Your task to perform on an android device: Search for Mexican restaurants on Maps Image 0: 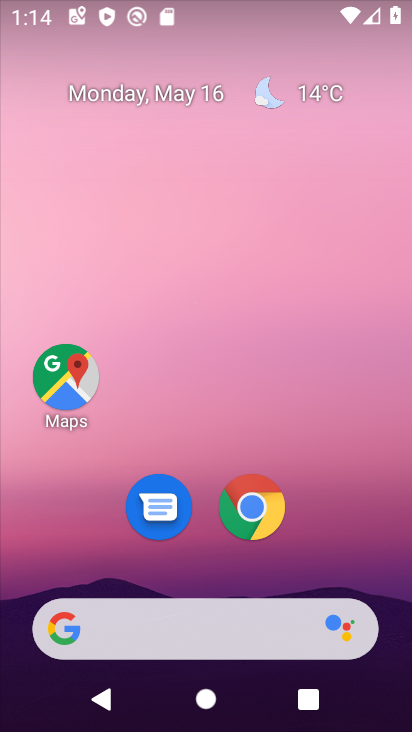
Step 0: drag from (192, 563) to (226, 220)
Your task to perform on an android device: Search for Mexican restaurants on Maps Image 1: 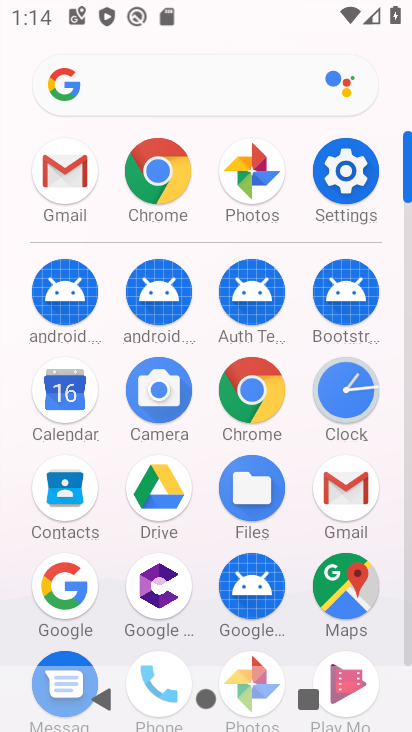
Step 1: click (374, 592)
Your task to perform on an android device: Search for Mexican restaurants on Maps Image 2: 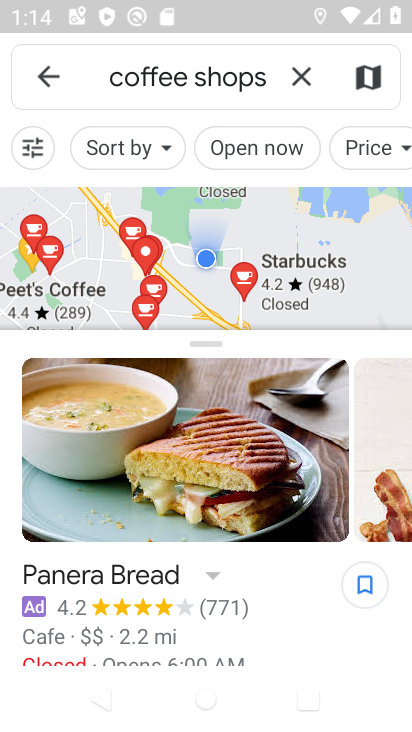
Step 2: click (297, 79)
Your task to perform on an android device: Search for Mexican restaurants on Maps Image 3: 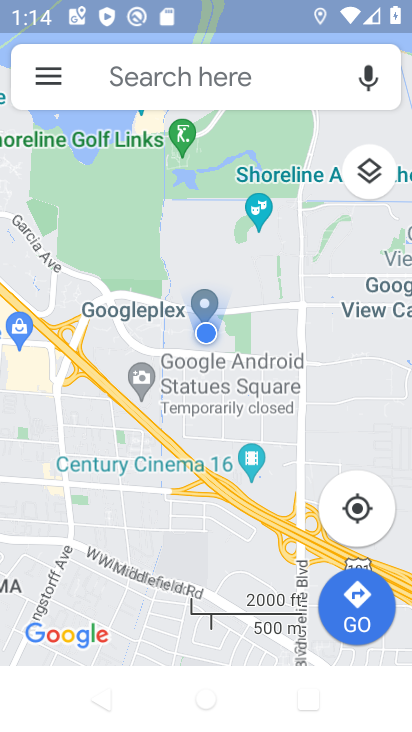
Step 3: click (243, 83)
Your task to perform on an android device: Search for Mexican restaurants on Maps Image 4: 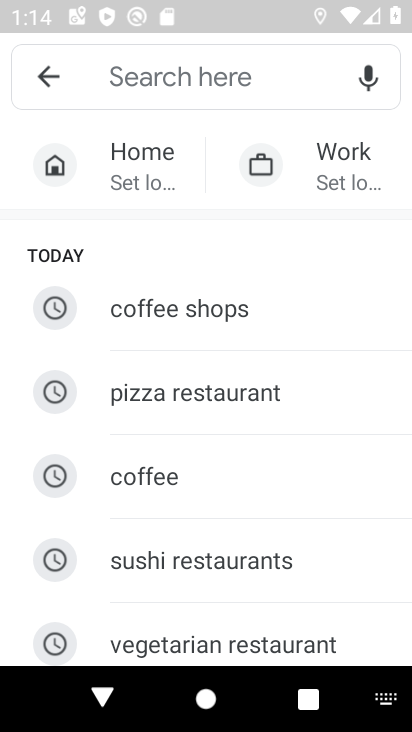
Step 4: drag from (232, 598) to (271, 221)
Your task to perform on an android device: Search for Mexican restaurants on Maps Image 5: 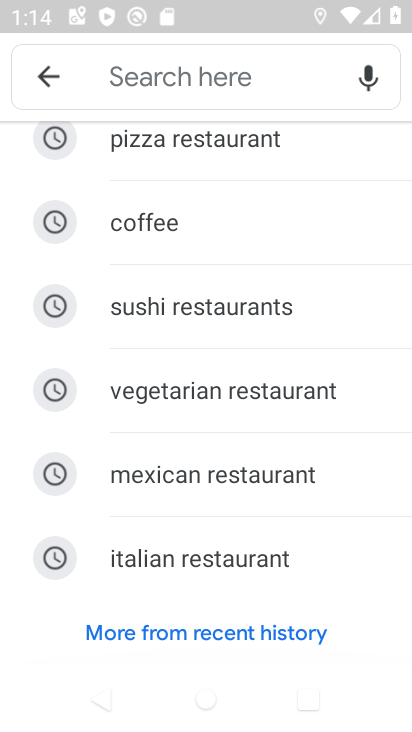
Step 5: click (258, 481)
Your task to perform on an android device: Search for Mexican restaurants on Maps Image 6: 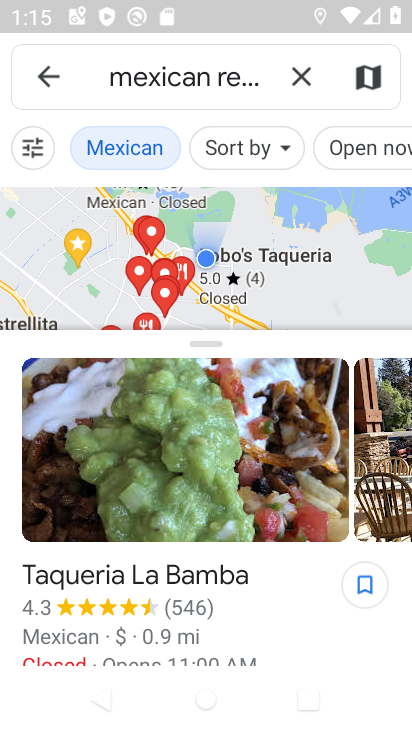
Step 6: task complete